Your task to perform on an android device: change the clock display to digital Image 0: 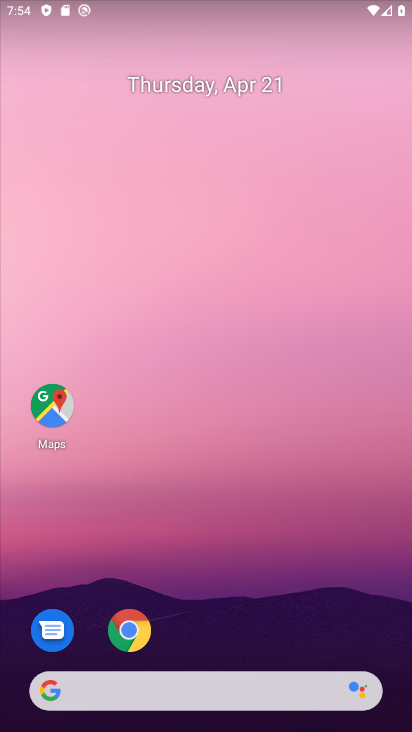
Step 0: drag from (309, 699) to (362, 79)
Your task to perform on an android device: change the clock display to digital Image 1: 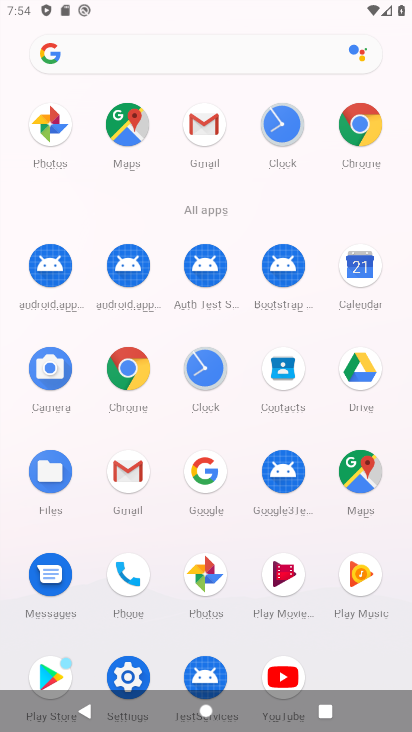
Step 1: click (201, 371)
Your task to perform on an android device: change the clock display to digital Image 2: 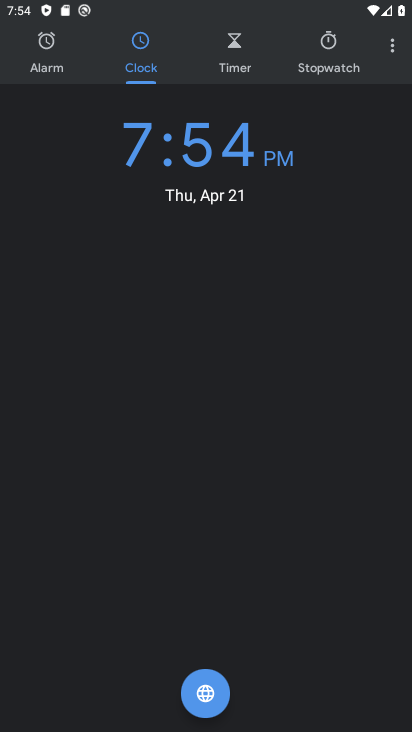
Step 2: click (393, 52)
Your task to perform on an android device: change the clock display to digital Image 3: 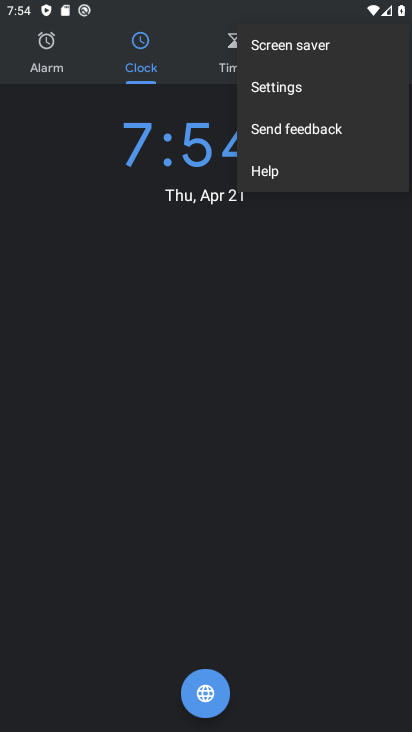
Step 3: click (357, 93)
Your task to perform on an android device: change the clock display to digital Image 4: 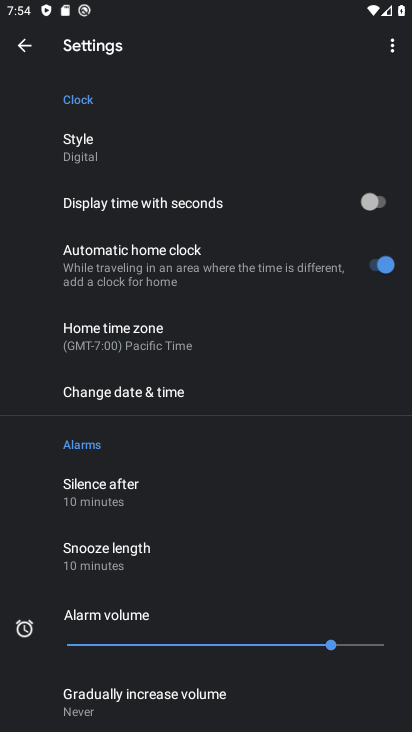
Step 4: click (282, 155)
Your task to perform on an android device: change the clock display to digital Image 5: 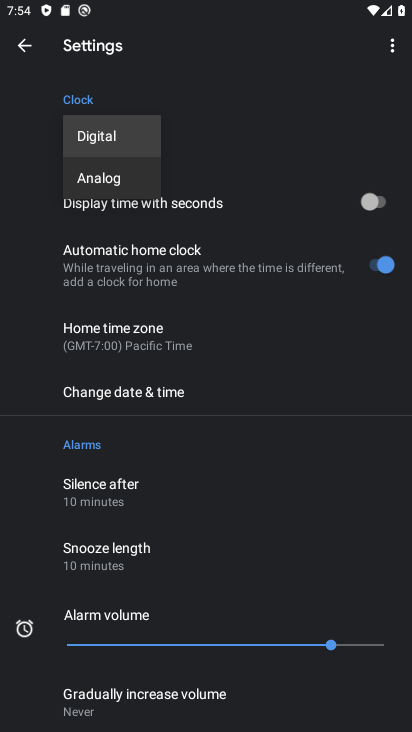
Step 5: task complete